Your task to perform on an android device: open chrome and create a bookmark for the current page Image 0: 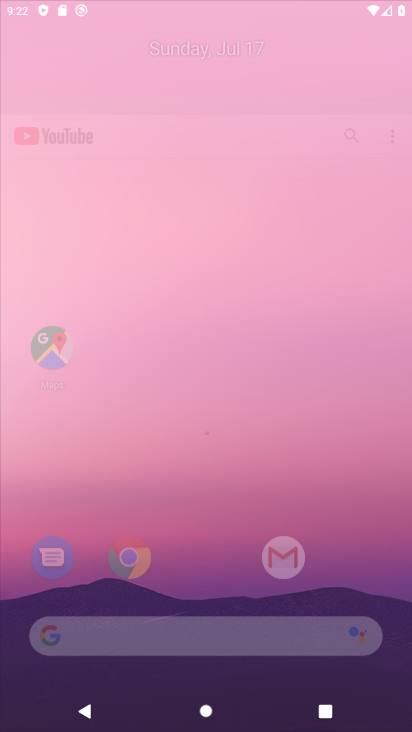
Step 0: press home button
Your task to perform on an android device: open chrome and create a bookmark for the current page Image 1: 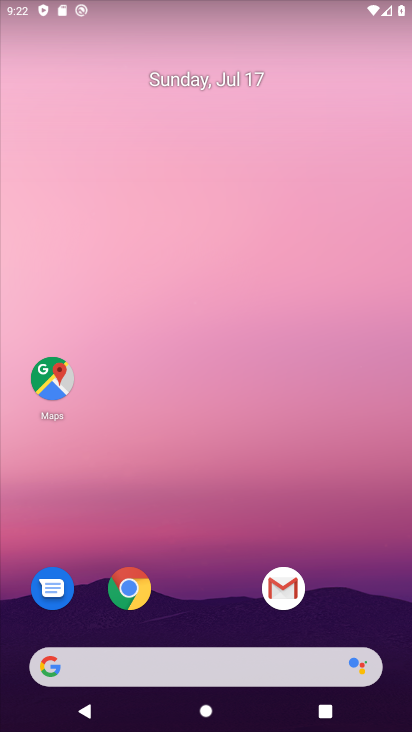
Step 1: click (106, 596)
Your task to perform on an android device: open chrome and create a bookmark for the current page Image 2: 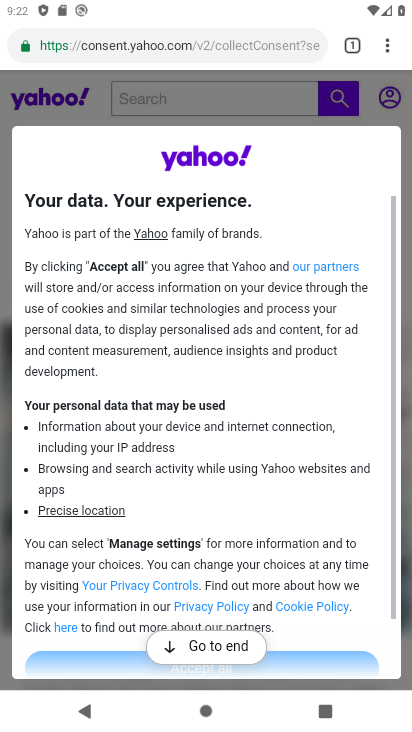
Step 2: click (387, 62)
Your task to perform on an android device: open chrome and create a bookmark for the current page Image 3: 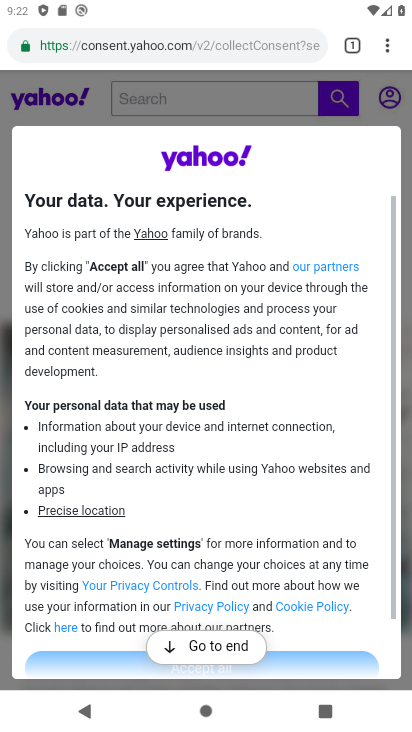
Step 3: click (385, 57)
Your task to perform on an android device: open chrome and create a bookmark for the current page Image 4: 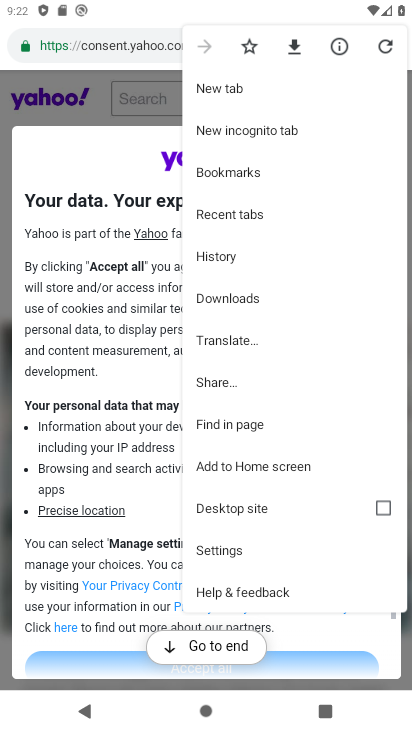
Step 4: click (247, 163)
Your task to perform on an android device: open chrome and create a bookmark for the current page Image 5: 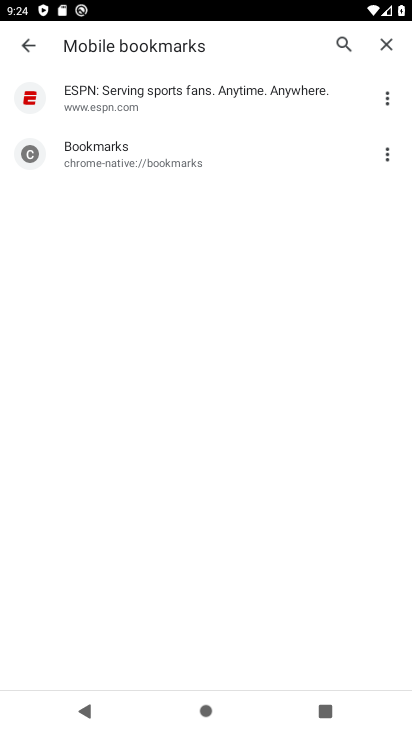
Step 5: task complete